Your task to perform on an android device: Open Yahoo.com Image 0: 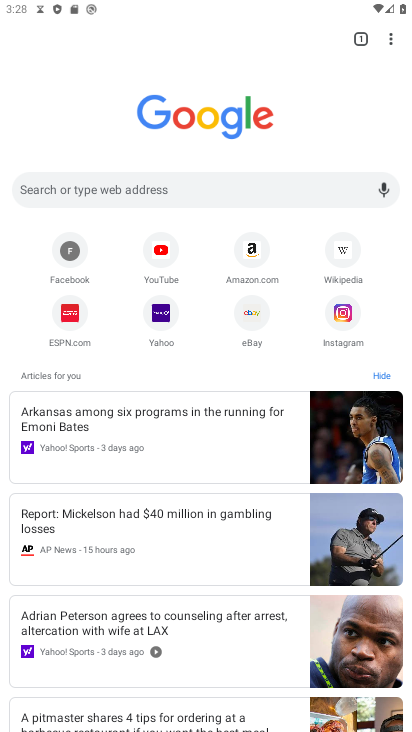
Step 0: click (164, 317)
Your task to perform on an android device: Open Yahoo.com Image 1: 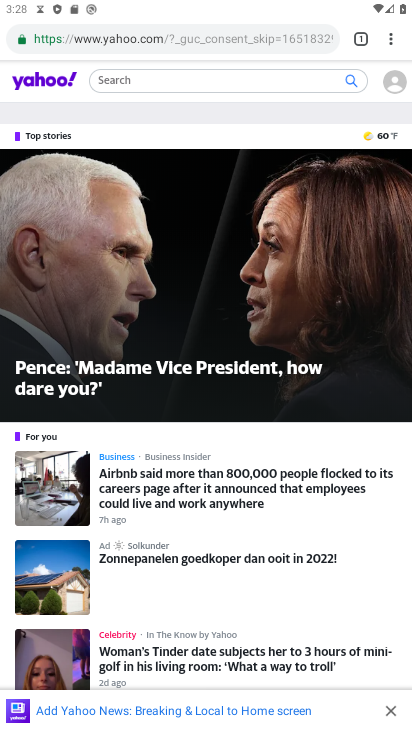
Step 1: task complete